Your task to perform on an android device: Open Yahoo.com Image 0: 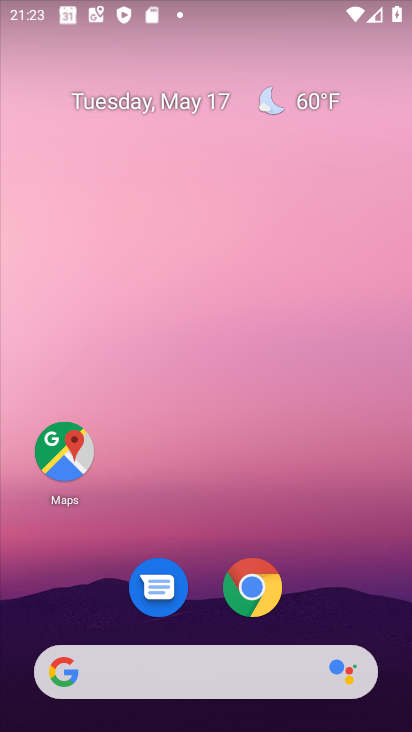
Step 0: drag from (201, 495) to (273, 128)
Your task to perform on an android device: Open Yahoo.com Image 1: 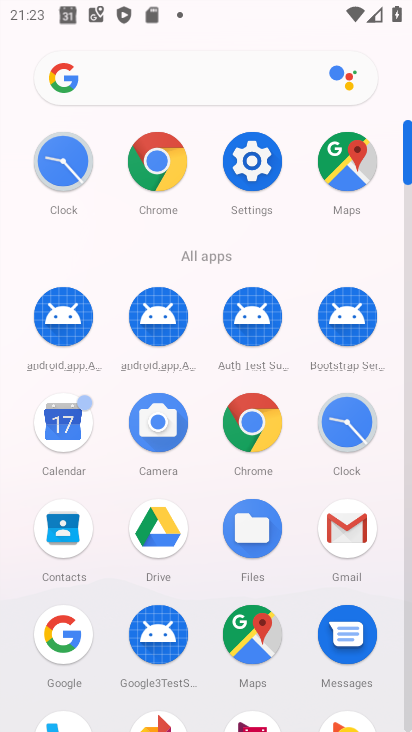
Step 1: click (262, 439)
Your task to perform on an android device: Open Yahoo.com Image 2: 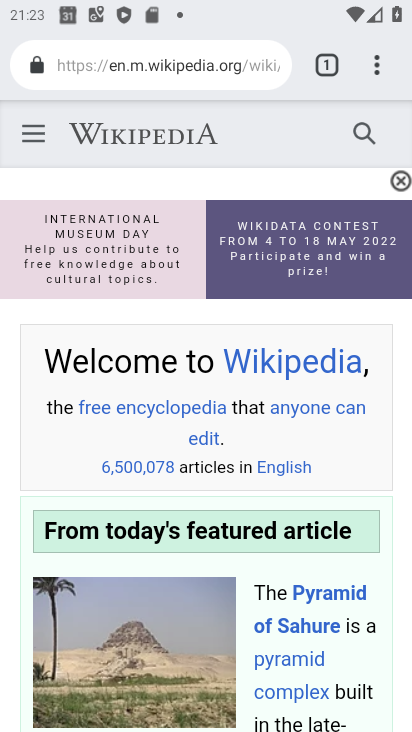
Step 2: click (336, 64)
Your task to perform on an android device: Open Yahoo.com Image 3: 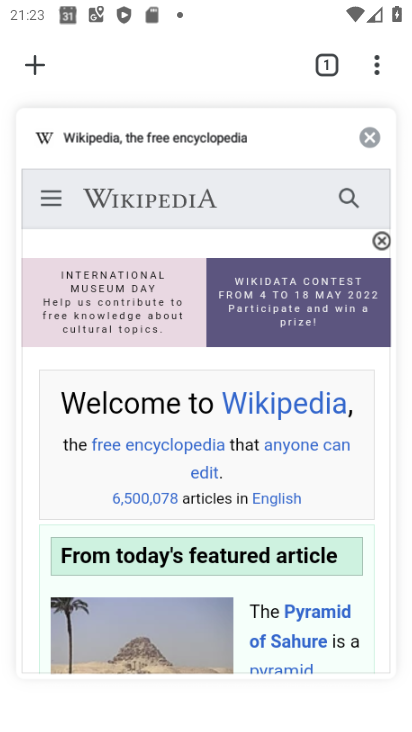
Step 3: click (32, 65)
Your task to perform on an android device: Open Yahoo.com Image 4: 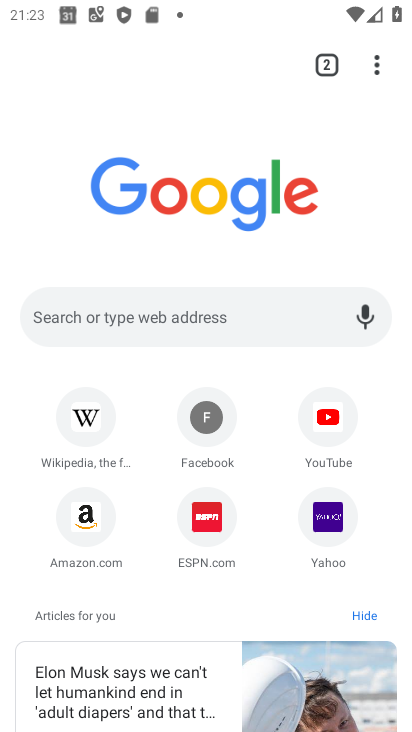
Step 4: click (335, 513)
Your task to perform on an android device: Open Yahoo.com Image 5: 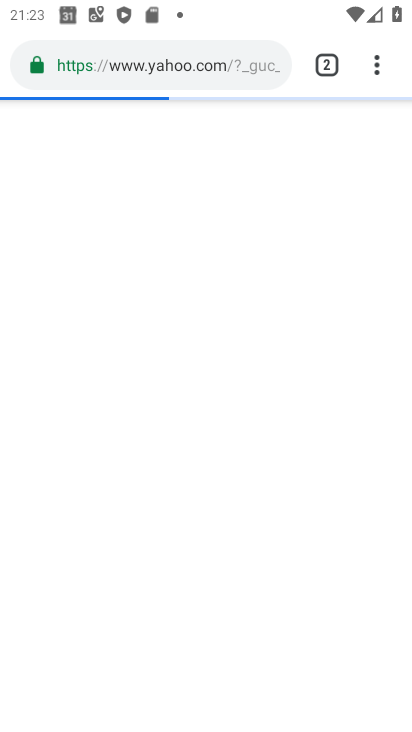
Step 5: task complete